Your task to perform on an android device: open app "Google Find My Device" (install if not already installed) Image 0: 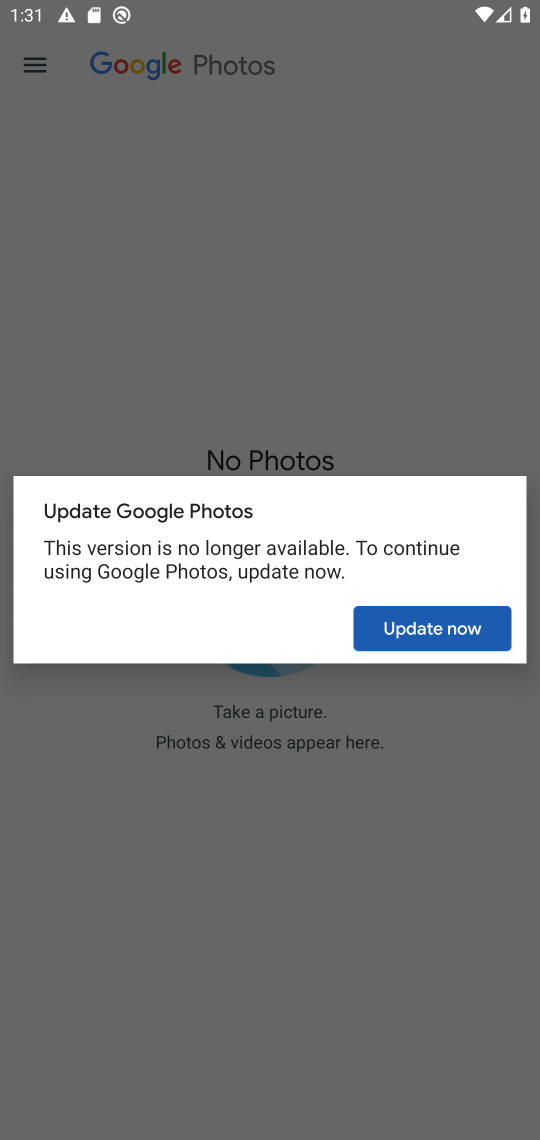
Step 0: task complete